Your task to perform on an android device: Check the weather Image 0: 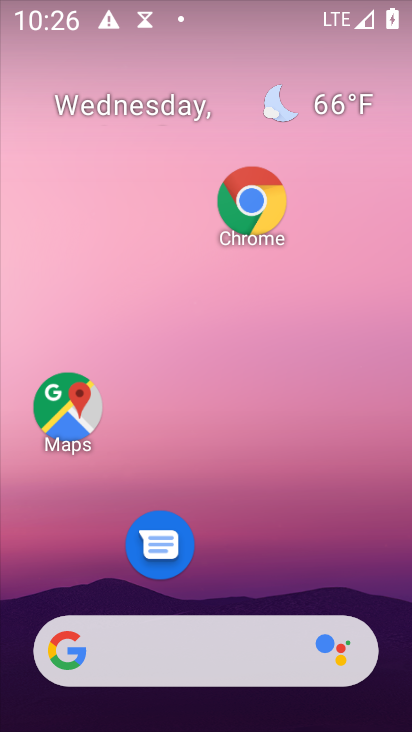
Step 0: click (223, 665)
Your task to perform on an android device: Check the weather Image 1: 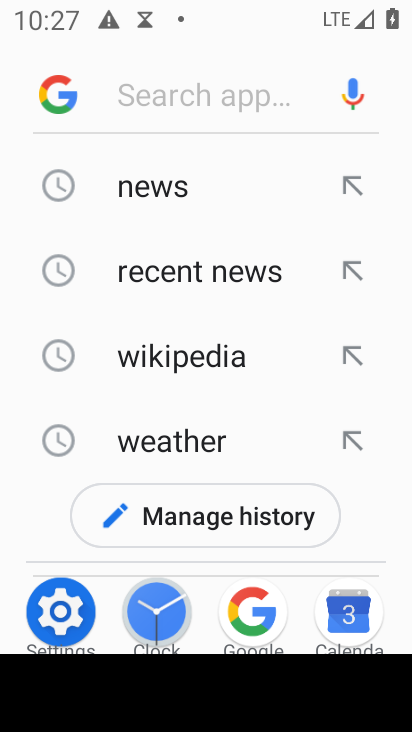
Step 1: type "weather"
Your task to perform on an android device: Check the weather Image 2: 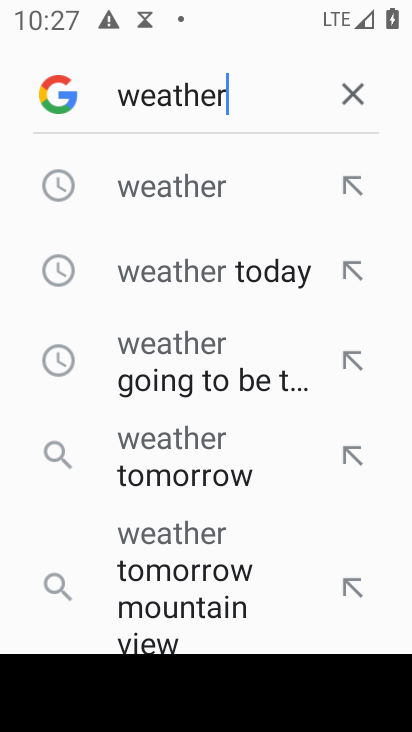
Step 2: click (265, 178)
Your task to perform on an android device: Check the weather Image 3: 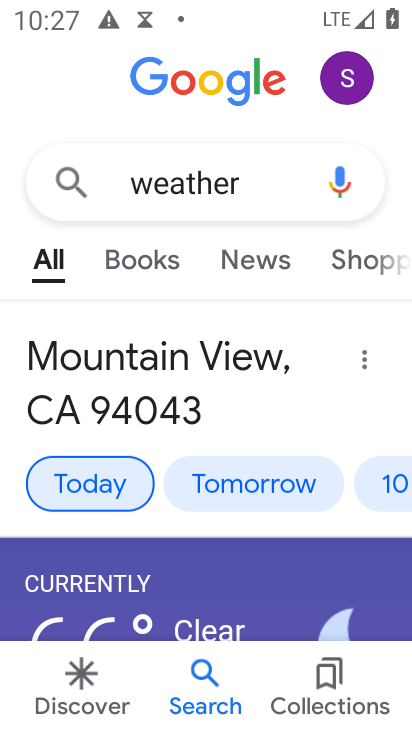
Step 3: task complete